Your task to perform on an android device: check google app version Image 0: 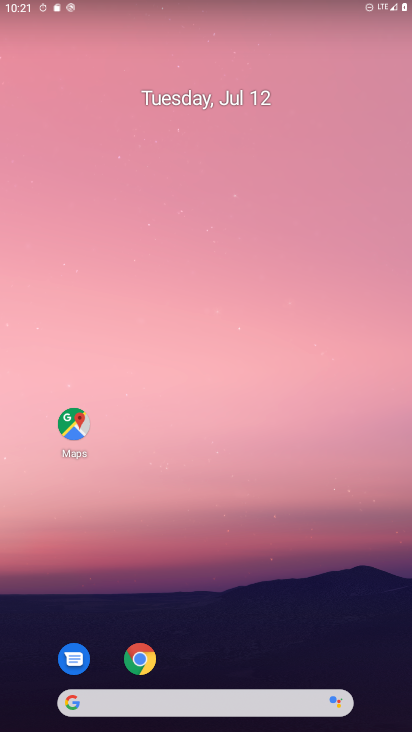
Step 0: drag from (377, 689) to (349, 570)
Your task to perform on an android device: check google app version Image 1: 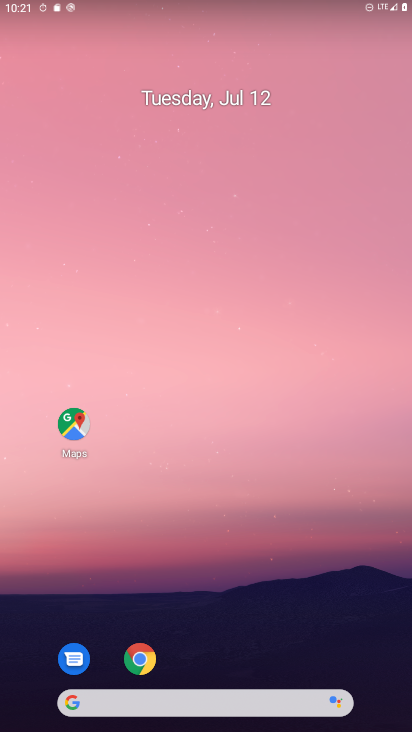
Step 1: drag from (371, 658) to (149, 39)
Your task to perform on an android device: check google app version Image 2: 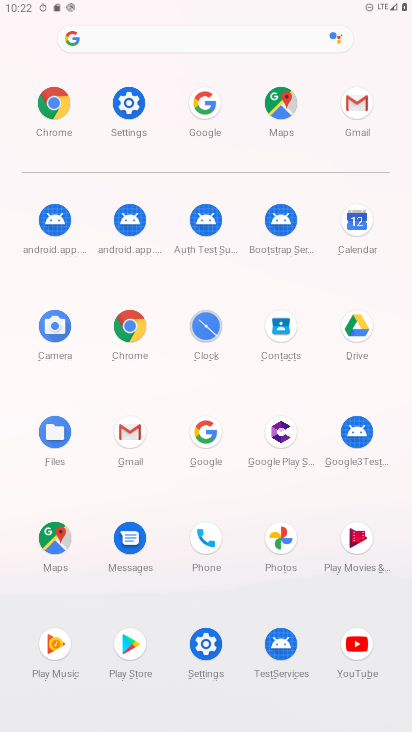
Step 2: click (214, 430)
Your task to perform on an android device: check google app version Image 3: 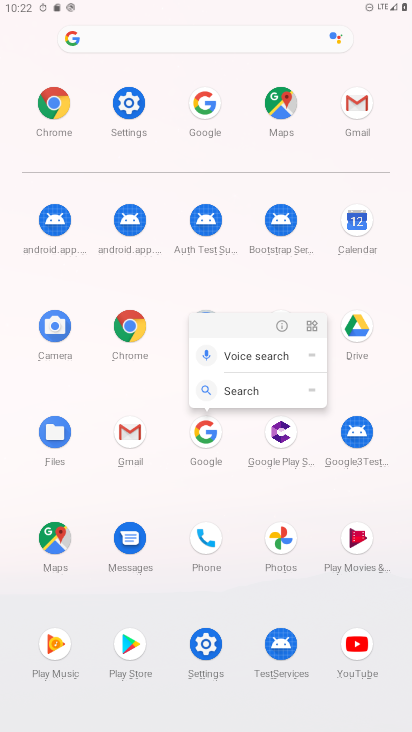
Step 3: click (283, 332)
Your task to perform on an android device: check google app version Image 4: 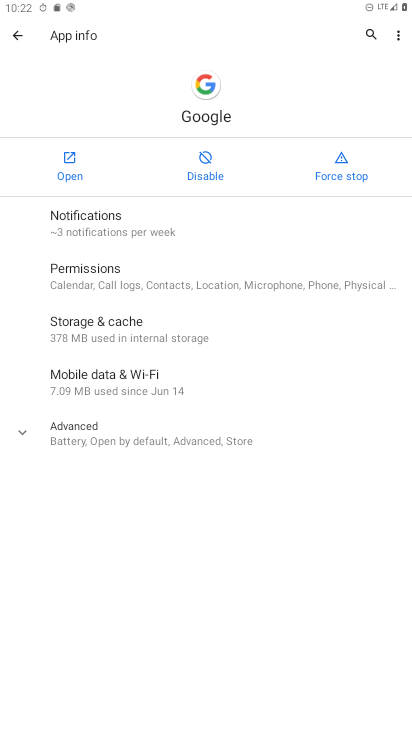
Step 4: click (224, 662)
Your task to perform on an android device: check google app version Image 5: 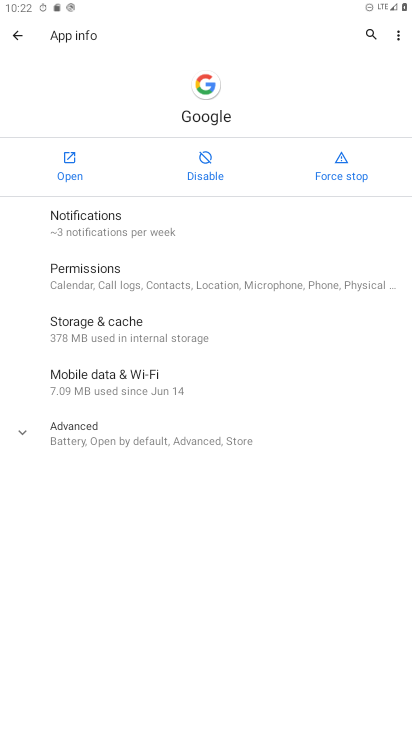
Step 5: click (149, 423)
Your task to perform on an android device: check google app version Image 6: 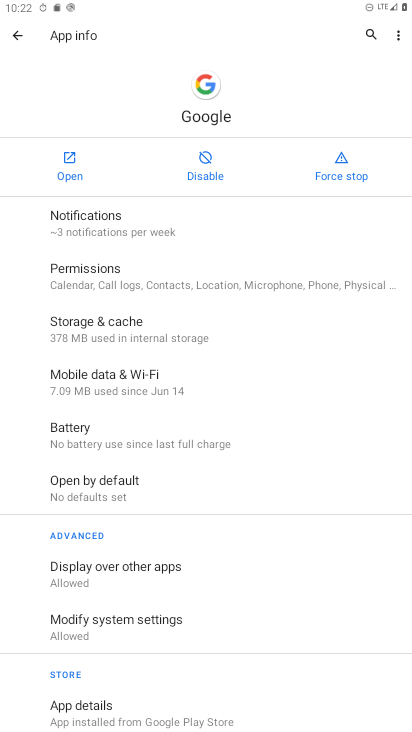
Step 6: task complete